Your task to perform on an android device: Open Android settings Image 0: 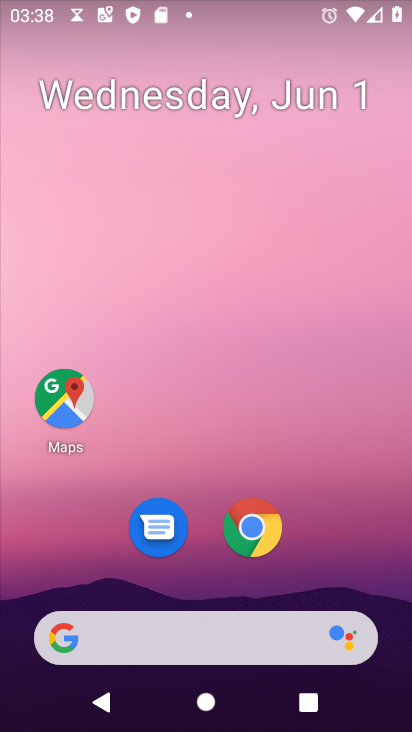
Step 0: drag from (333, 563) to (205, 123)
Your task to perform on an android device: Open Android settings Image 1: 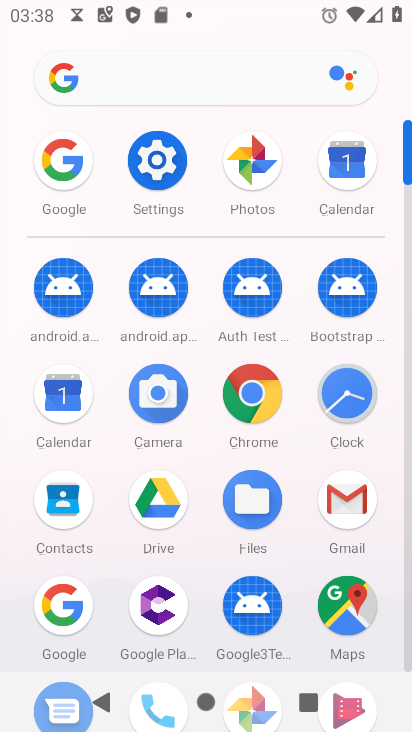
Step 1: click (158, 160)
Your task to perform on an android device: Open Android settings Image 2: 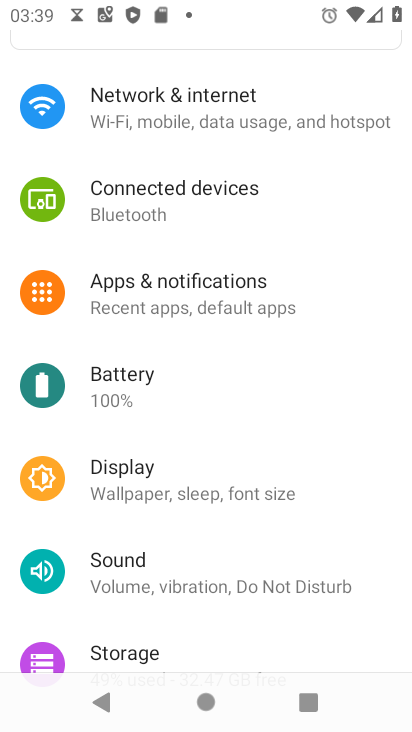
Step 2: task complete